Your task to perform on an android device: Open Google Maps Image 0: 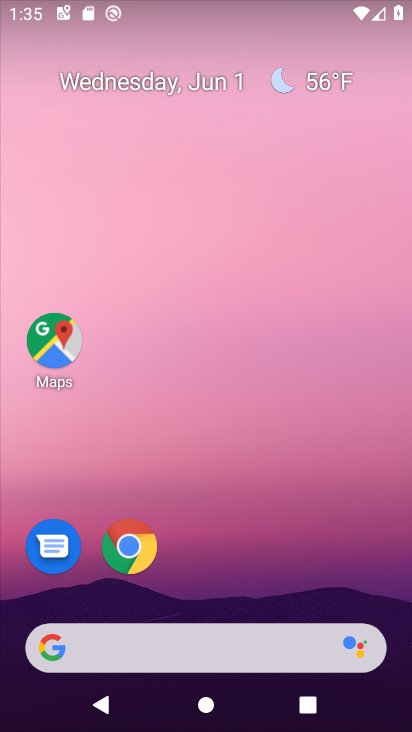
Step 0: click (53, 356)
Your task to perform on an android device: Open Google Maps Image 1: 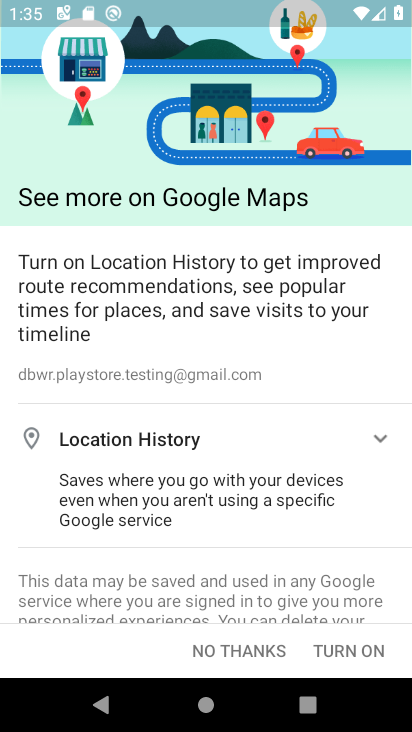
Step 1: click (243, 665)
Your task to perform on an android device: Open Google Maps Image 2: 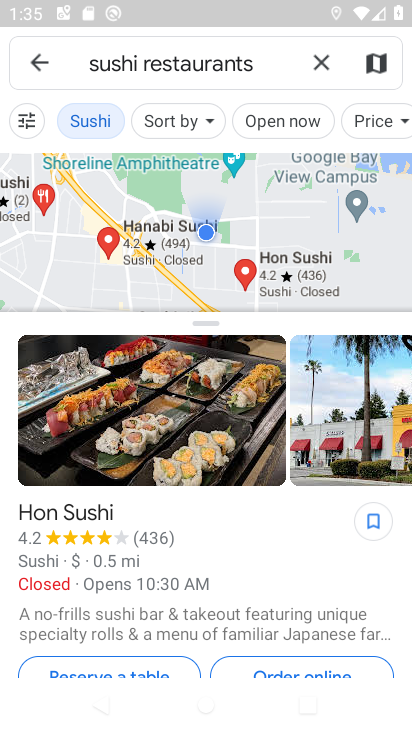
Step 2: task complete